Your task to perform on an android device: turn on improve location accuracy Image 0: 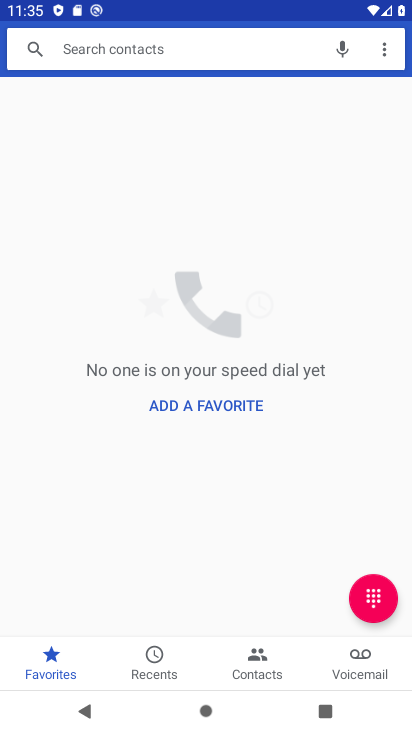
Step 0: press home button
Your task to perform on an android device: turn on improve location accuracy Image 1: 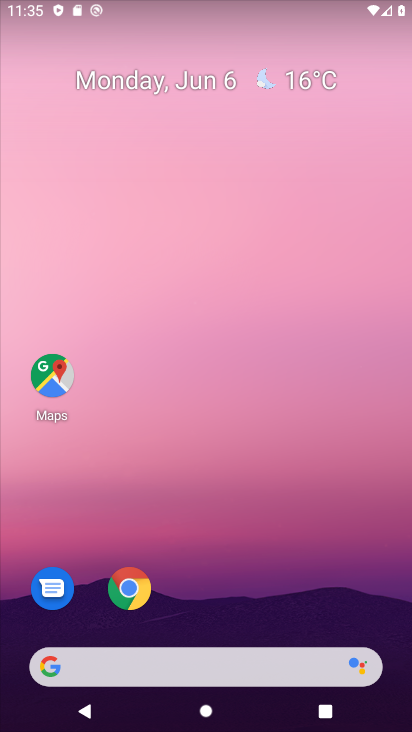
Step 1: drag from (222, 624) to (10, 0)
Your task to perform on an android device: turn on improve location accuracy Image 2: 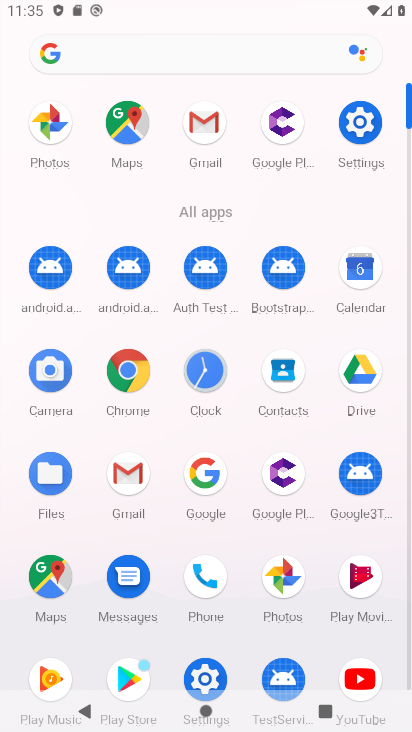
Step 2: click (363, 116)
Your task to perform on an android device: turn on improve location accuracy Image 3: 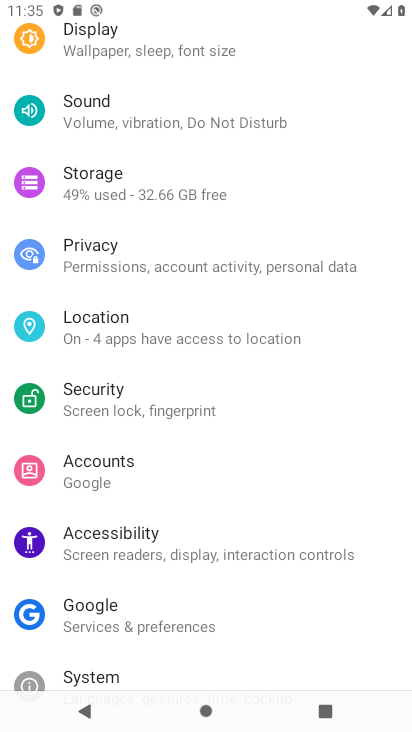
Step 3: click (135, 341)
Your task to perform on an android device: turn on improve location accuracy Image 4: 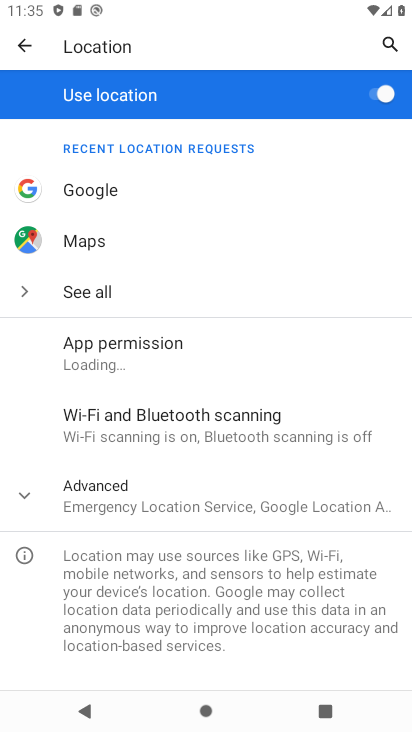
Step 4: click (129, 480)
Your task to perform on an android device: turn on improve location accuracy Image 5: 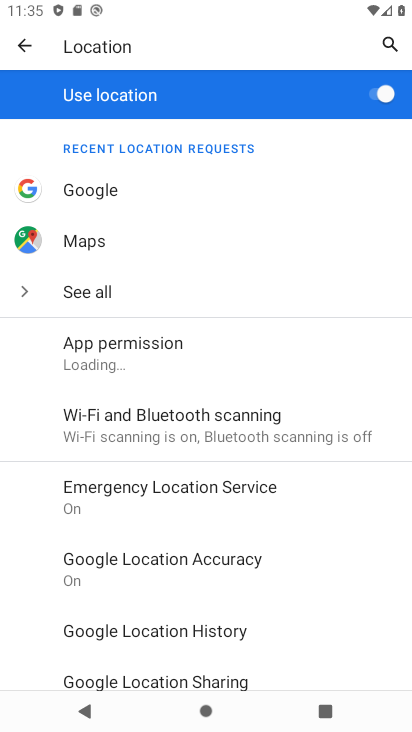
Step 5: click (121, 531)
Your task to perform on an android device: turn on improve location accuracy Image 6: 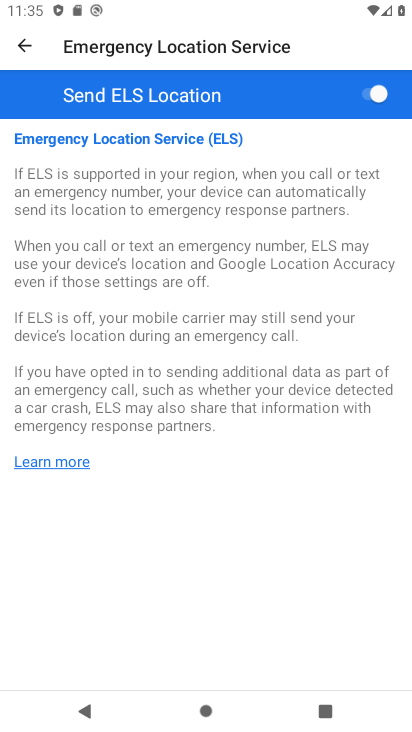
Step 6: click (29, 35)
Your task to perform on an android device: turn on improve location accuracy Image 7: 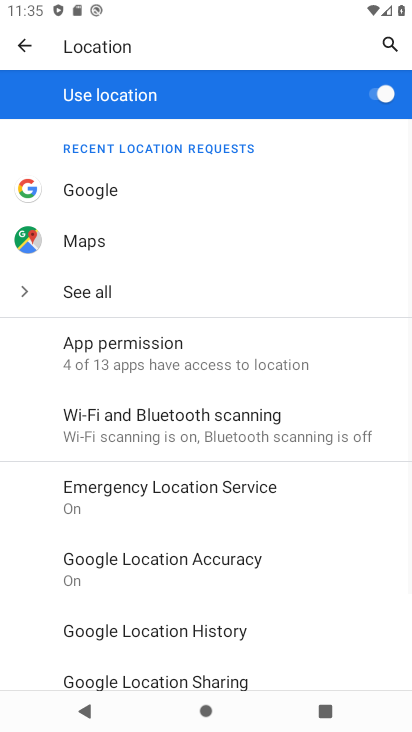
Step 7: click (152, 542)
Your task to perform on an android device: turn on improve location accuracy Image 8: 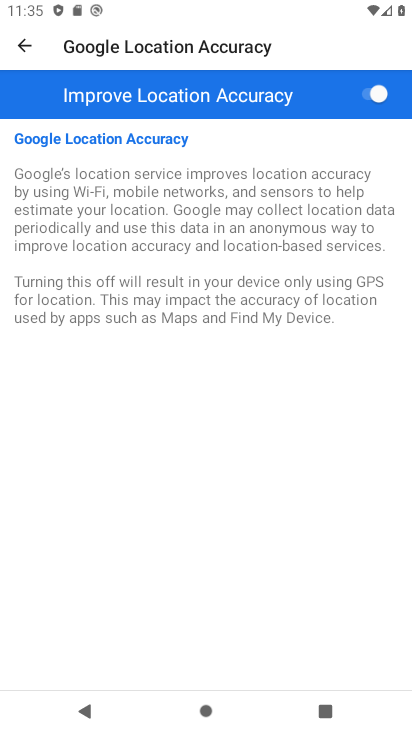
Step 8: task complete